Your task to perform on an android device: turn off improve location accuracy Image 0: 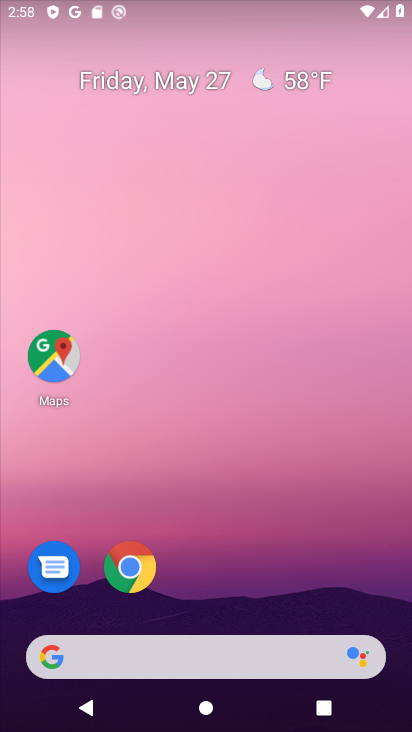
Step 0: drag from (216, 617) to (213, 54)
Your task to perform on an android device: turn off improve location accuracy Image 1: 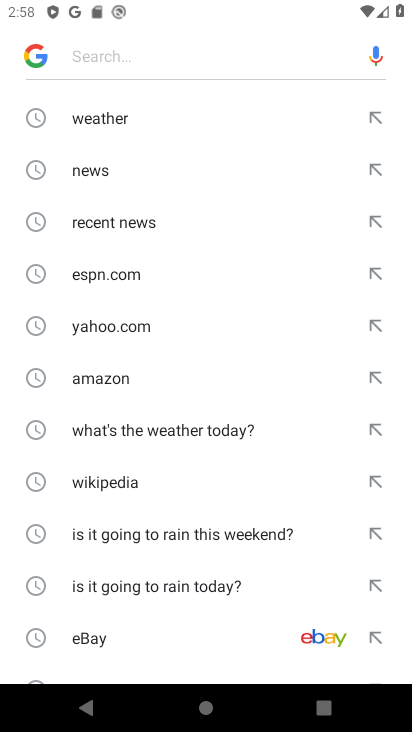
Step 1: press home button
Your task to perform on an android device: turn off improve location accuracy Image 2: 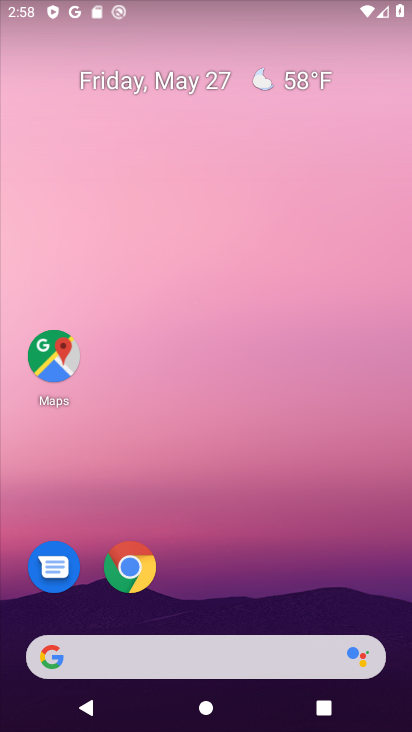
Step 2: drag from (224, 604) to (228, 0)
Your task to perform on an android device: turn off improve location accuracy Image 3: 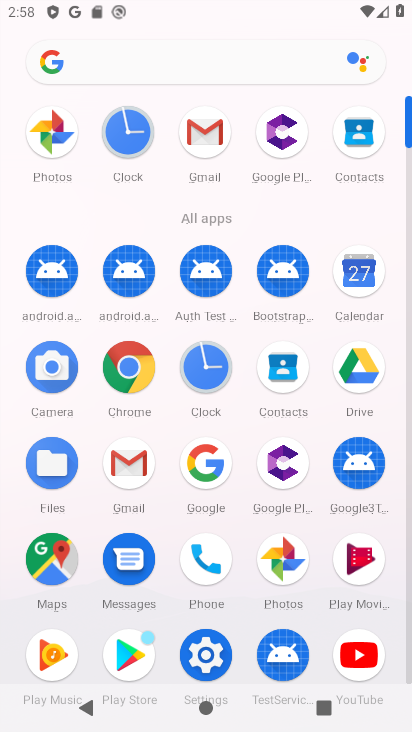
Step 3: click (203, 645)
Your task to perform on an android device: turn off improve location accuracy Image 4: 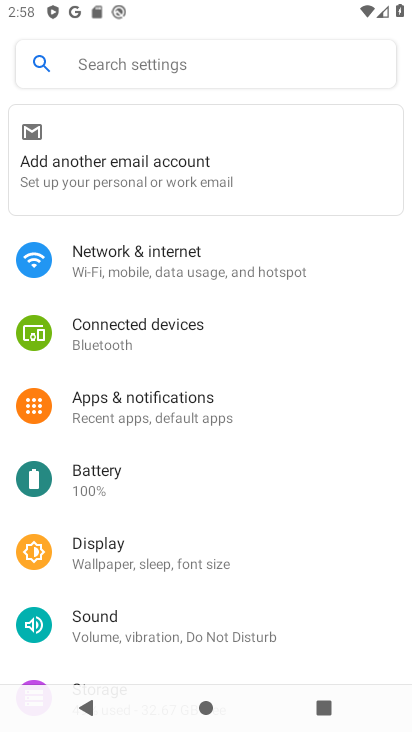
Step 4: drag from (161, 605) to (177, 285)
Your task to perform on an android device: turn off improve location accuracy Image 5: 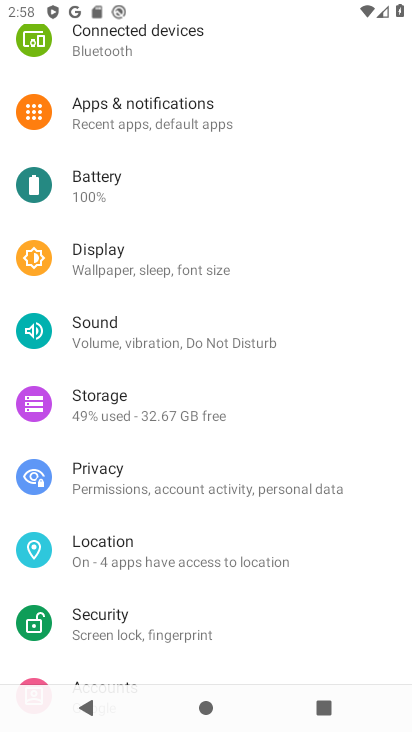
Step 5: click (142, 545)
Your task to perform on an android device: turn off improve location accuracy Image 6: 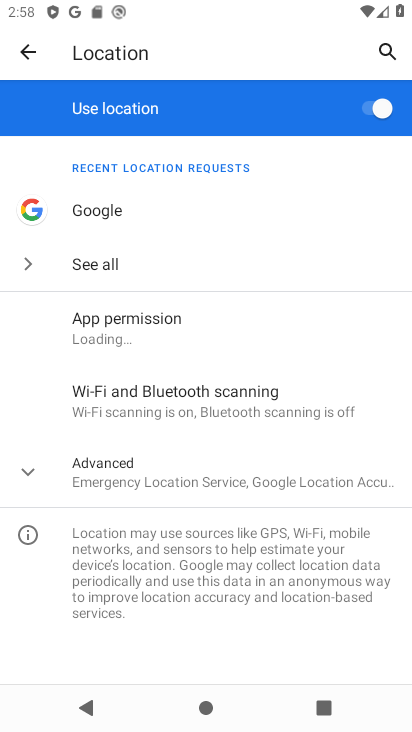
Step 6: click (29, 459)
Your task to perform on an android device: turn off improve location accuracy Image 7: 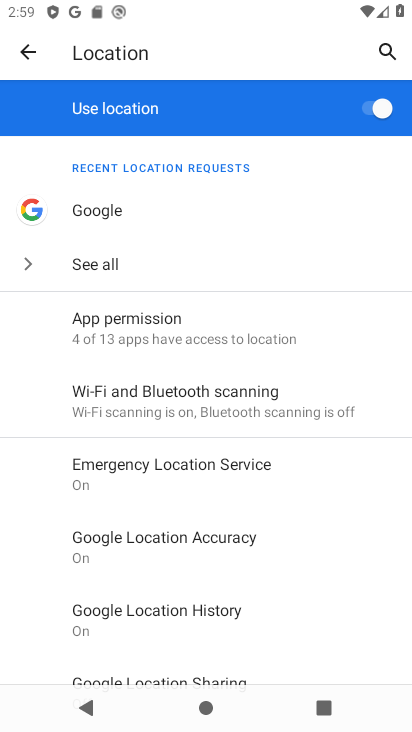
Step 7: click (111, 549)
Your task to perform on an android device: turn off improve location accuracy Image 8: 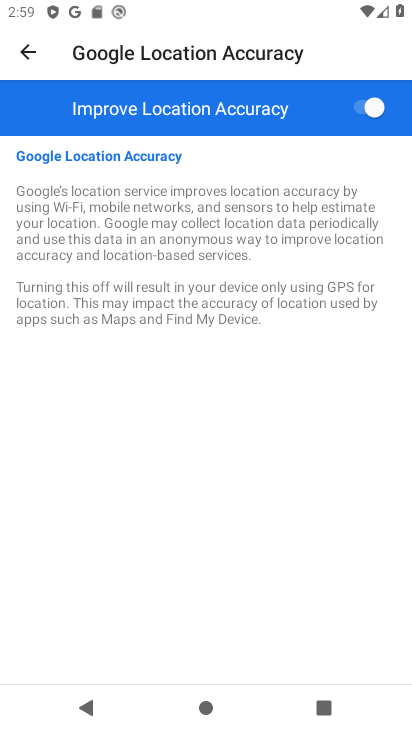
Step 8: click (364, 102)
Your task to perform on an android device: turn off improve location accuracy Image 9: 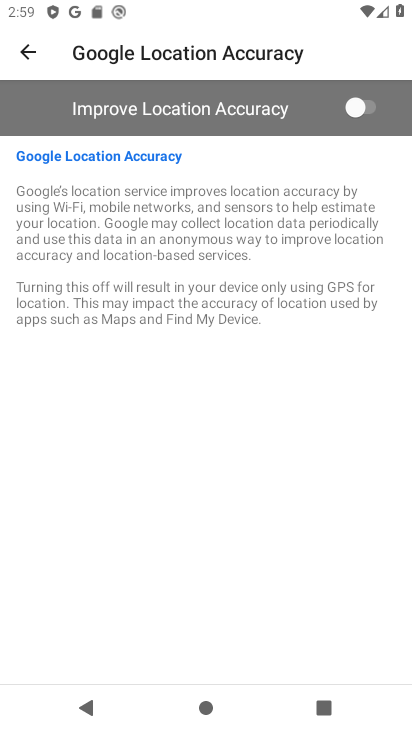
Step 9: task complete